Your task to perform on an android device: check android version Image 0: 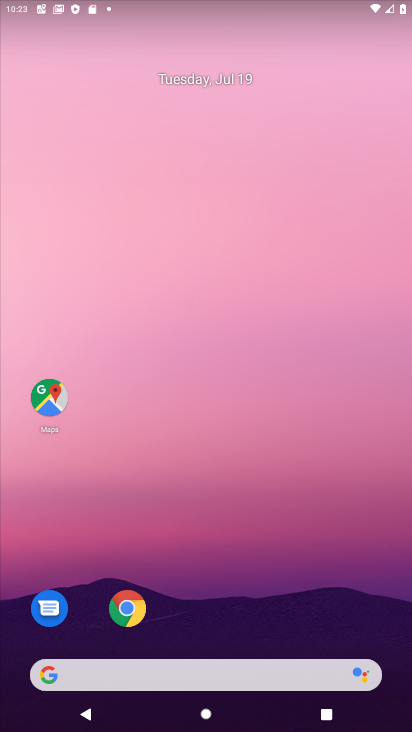
Step 0: drag from (317, 590) to (229, 105)
Your task to perform on an android device: check android version Image 1: 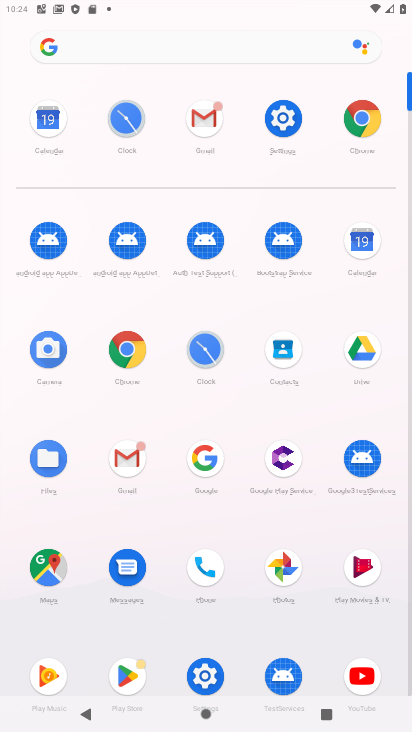
Step 1: click (278, 128)
Your task to perform on an android device: check android version Image 2: 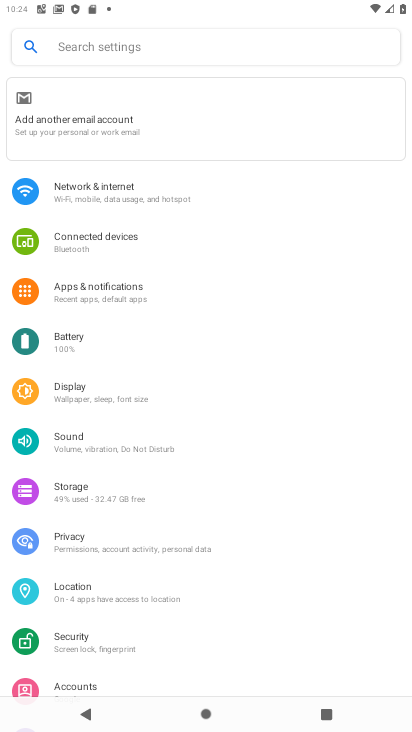
Step 2: drag from (219, 661) to (264, 243)
Your task to perform on an android device: check android version Image 3: 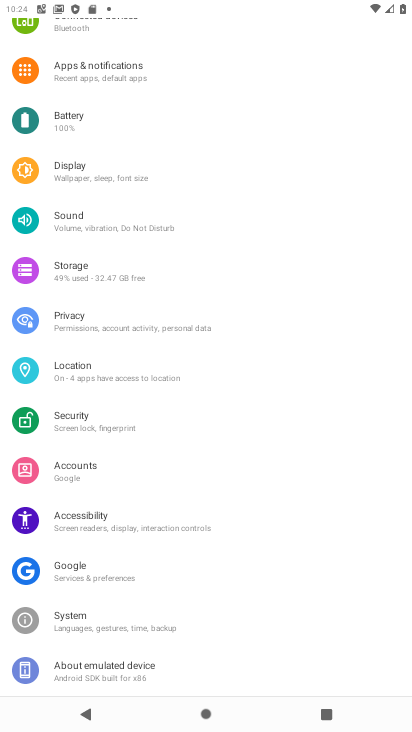
Step 3: click (109, 676)
Your task to perform on an android device: check android version Image 4: 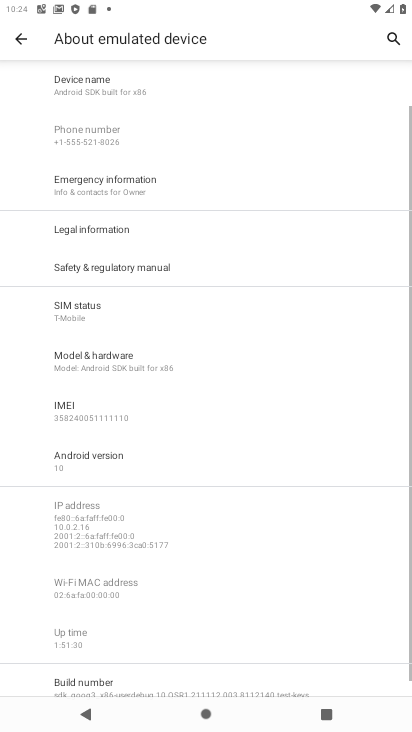
Step 4: drag from (113, 624) to (203, 353)
Your task to perform on an android device: check android version Image 5: 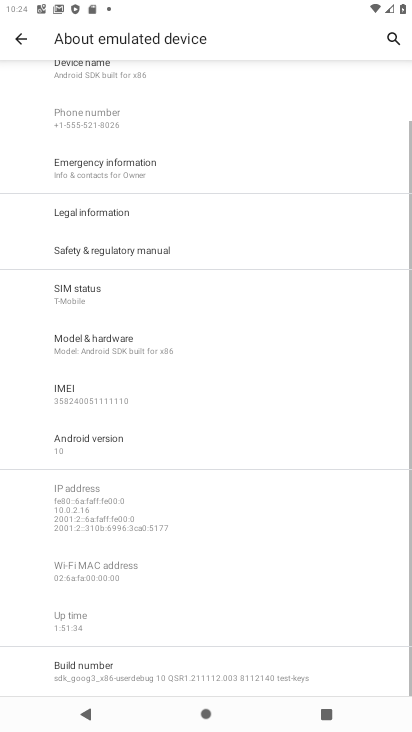
Step 5: click (118, 450)
Your task to perform on an android device: check android version Image 6: 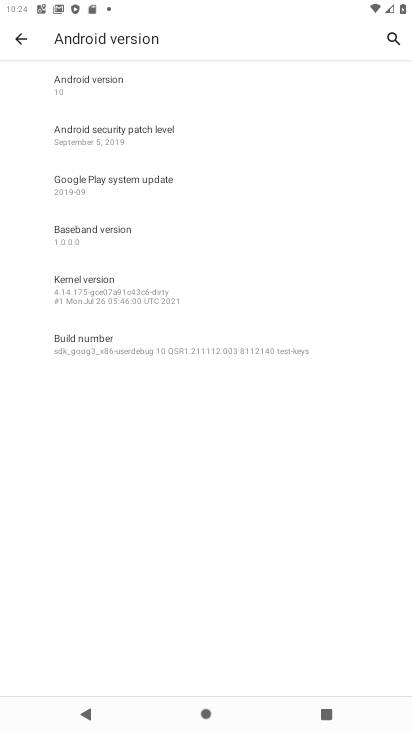
Step 6: task complete